Your task to perform on an android device: turn off priority inbox in the gmail app Image 0: 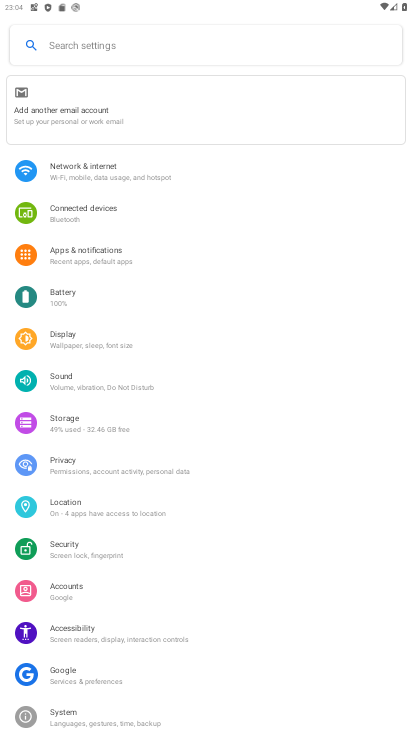
Step 0: press home button
Your task to perform on an android device: turn off priority inbox in the gmail app Image 1: 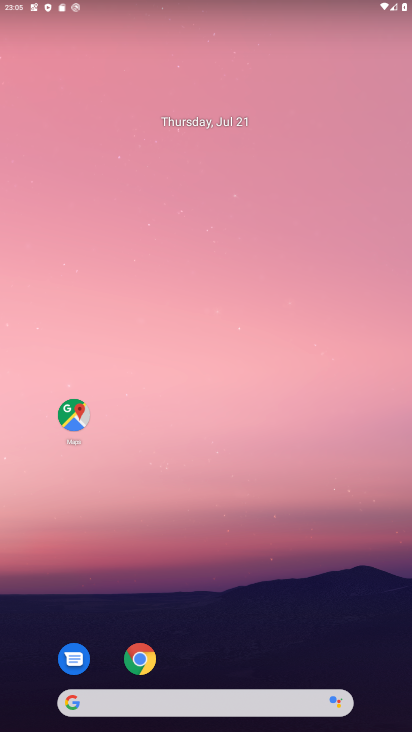
Step 1: drag from (265, 398) to (248, 5)
Your task to perform on an android device: turn off priority inbox in the gmail app Image 2: 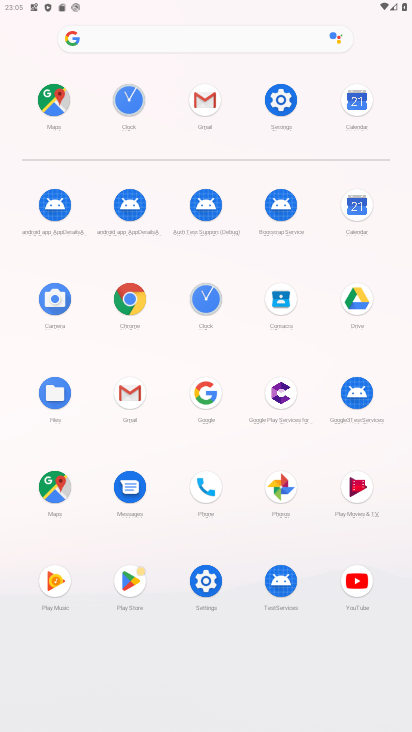
Step 2: click (202, 103)
Your task to perform on an android device: turn off priority inbox in the gmail app Image 3: 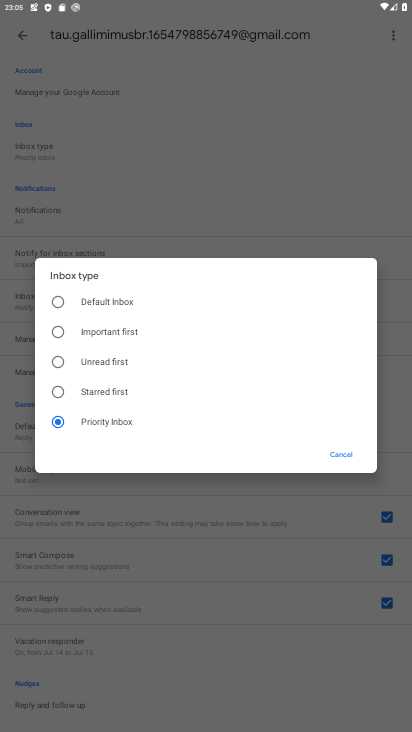
Step 3: task complete